Your task to perform on an android device: toggle notification dots Image 0: 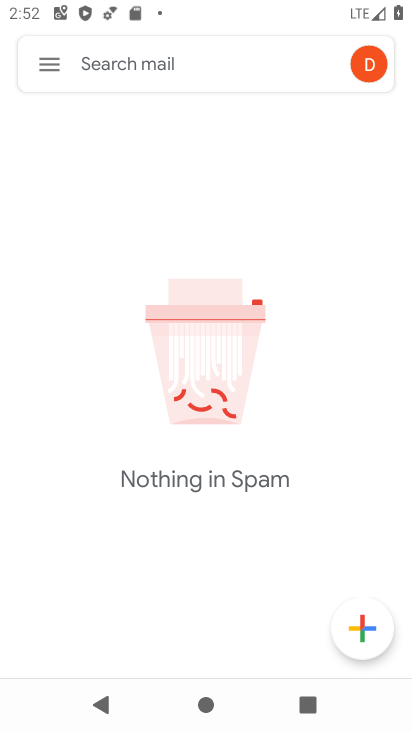
Step 0: press home button
Your task to perform on an android device: toggle notification dots Image 1: 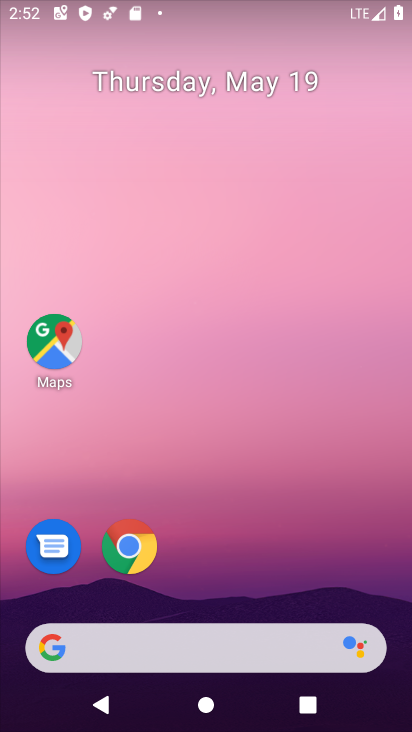
Step 1: drag from (141, 659) to (292, 197)
Your task to perform on an android device: toggle notification dots Image 2: 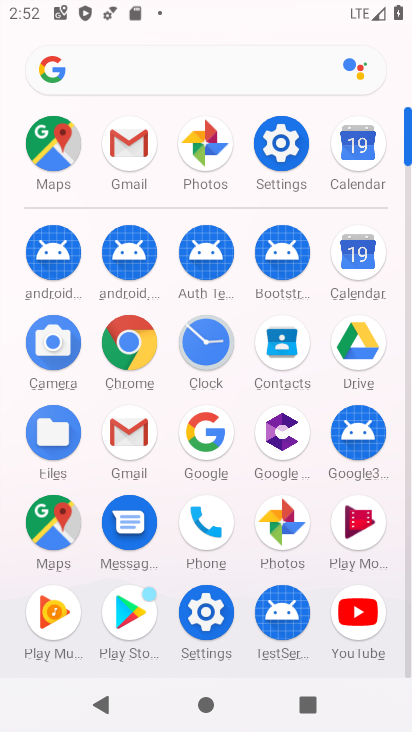
Step 2: click (280, 150)
Your task to perform on an android device: toggle notification dots Image 3: 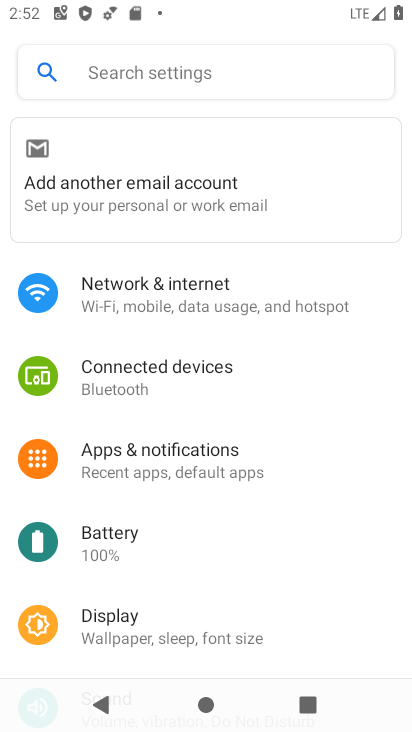
Step 3: click (201, 456)
Your task to perform on an android device: toggle notification dots Image 4: 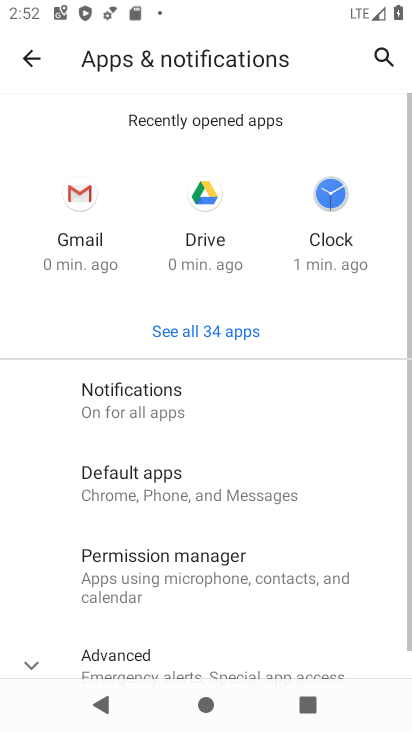
Step 4: click (166, 400)
Your task to perform on an android device: toggle notification dots Image 5: 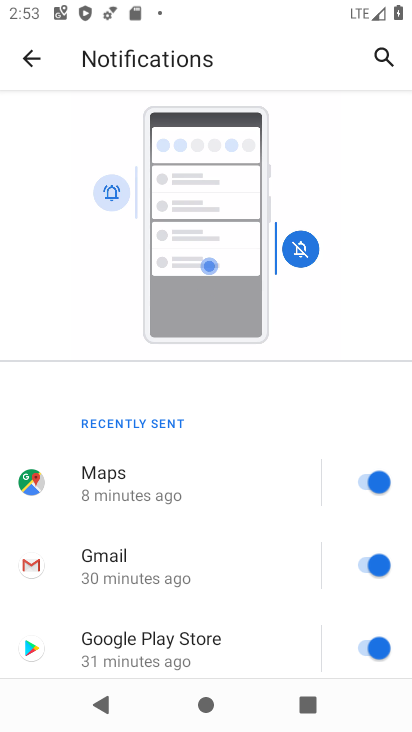
Step 5: drag from (219, 636) to (320, 120)
Your task to perform on an android device: toggle notification dots Image 6: 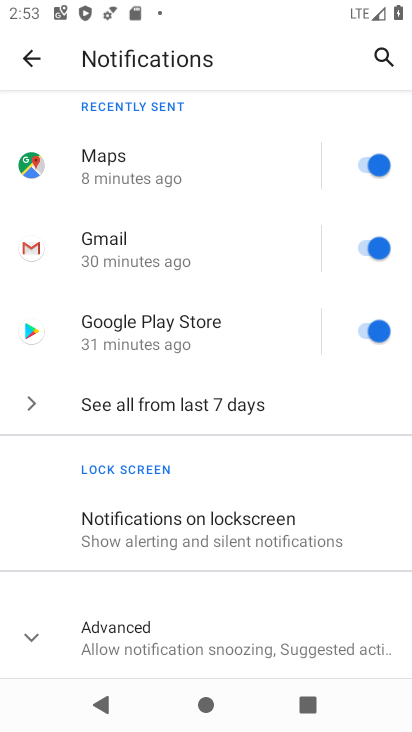
Step 6: click (152, 652)
Your task to perform on an android device: toggle notification dots Image 7: 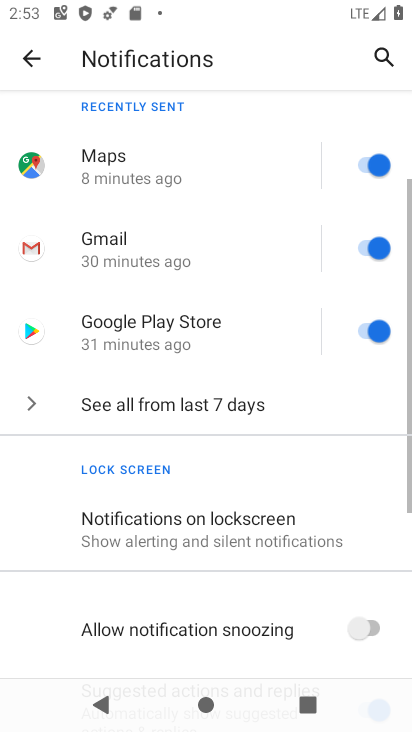
Step 7: drag from (219, 480) to (361, 40)
Your task to perform on an android device: toggle notification dots Image 8: 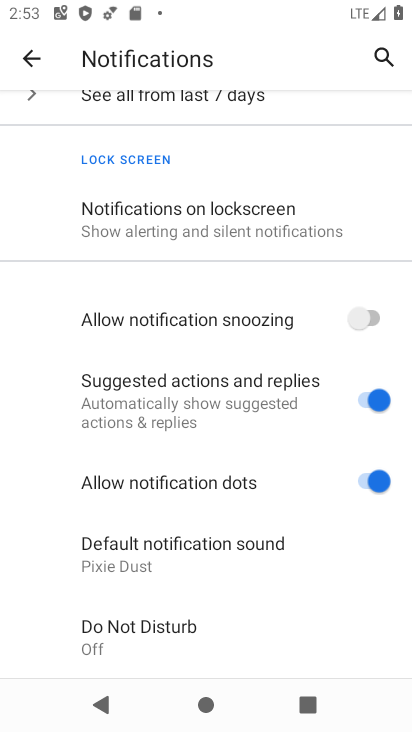
Step 8: click (357, 483)
Your task to perform on an android device: toggle notification dots Image 9: 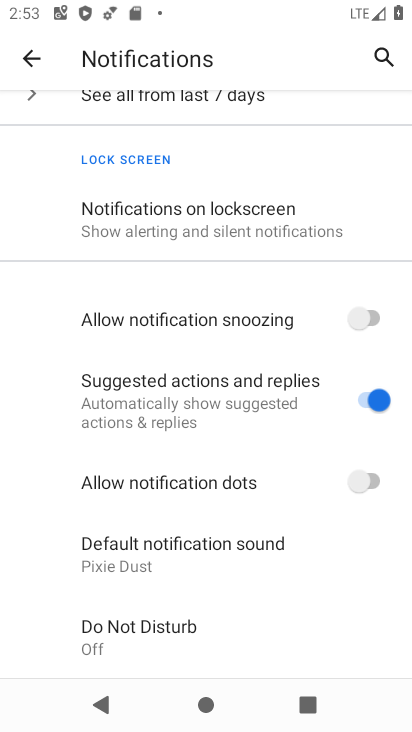
Step 9: task complete